Your task to perform on an android device: turn off location history Image 0: 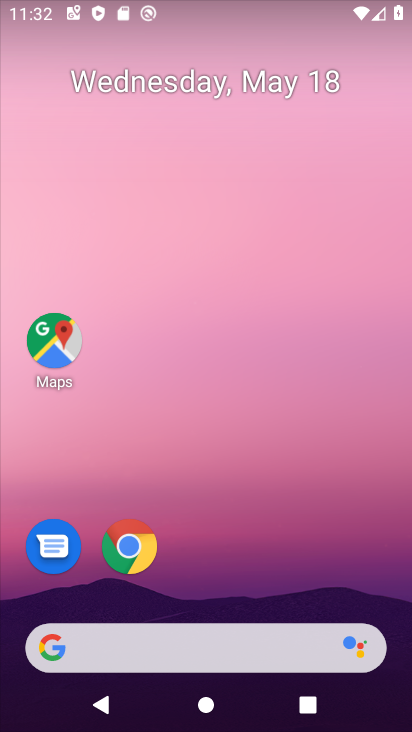
Step 0: drag from (226, 574) to (248, 52)
Your task to perform on an android device: turn off location history Image 1: 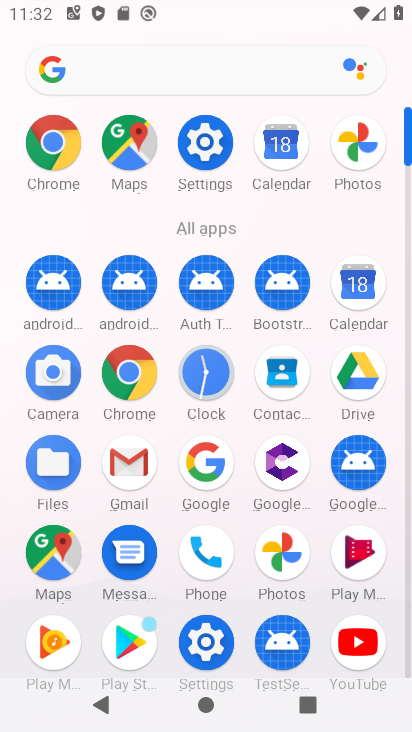
Step 1: click (203, 150)
Your task to perform on an android device: turn off location history Image 2: 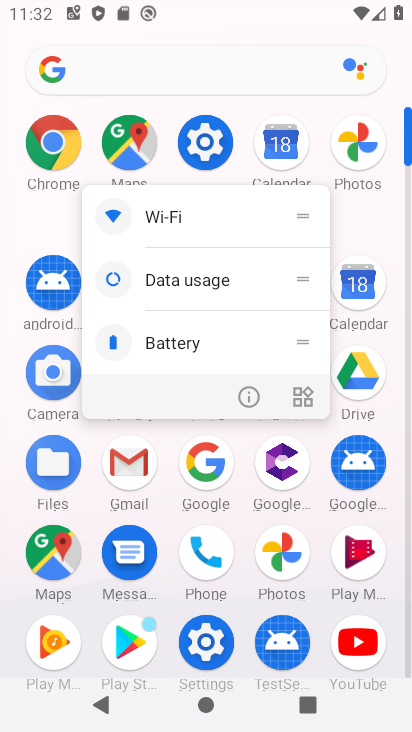
Step 2: click (199, 147)
Your task to perform on an android device: turn off location history Image 3: 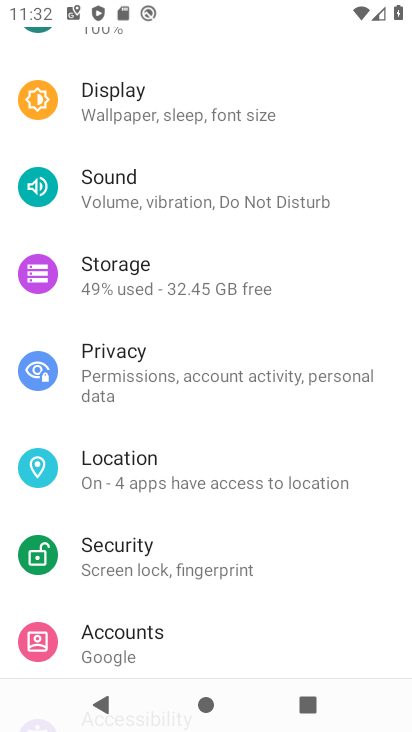
Step 3: click (158, 441)
Your task to perform on an android device: turn off location history Image 4: 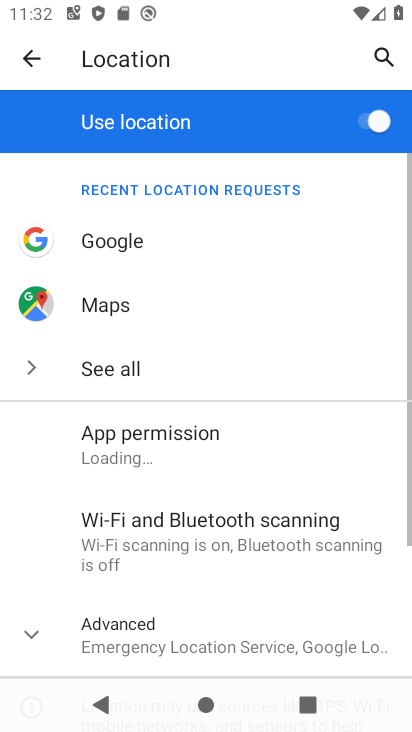
Step 4: drag from (219, 572) to (214, 212)
Your task to perform on an android device: turn off location history Image 5: 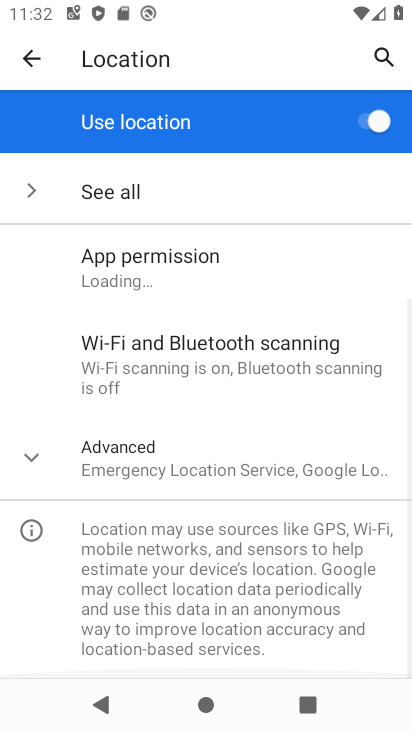
Step 5: click (124, 459)
Your task to perform on an android device: turn off location history Image 6: 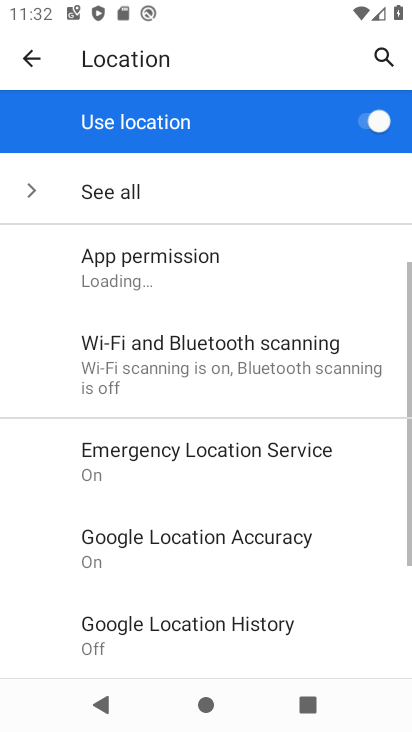
Step 6: drag from (224, 572) to (201, 422)
Your task to perform on an android device: turn off location history Image 7: 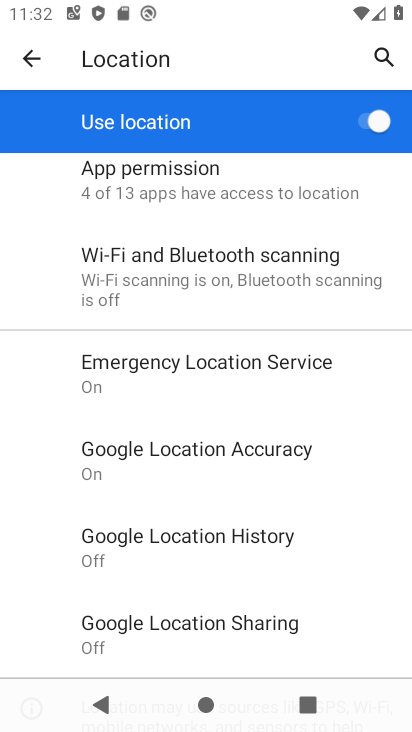
Step 7: click (151, 538)
Your task to perform on an android device: turn off location history Image 8: 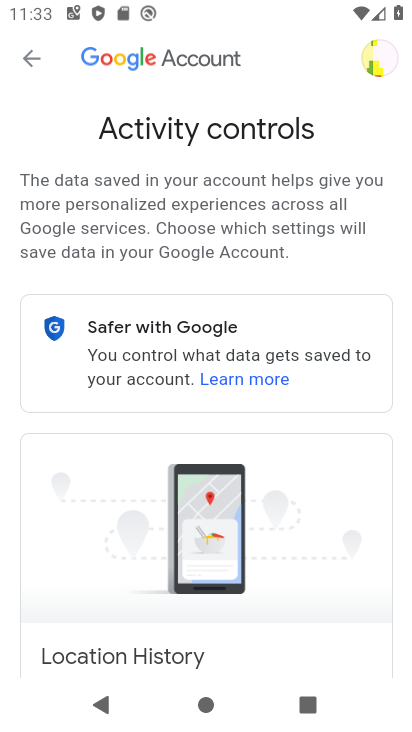
Step 8: drag from (281, 596) to (331, 153)
Your task to perform on an android device: turn off location history Image 9: 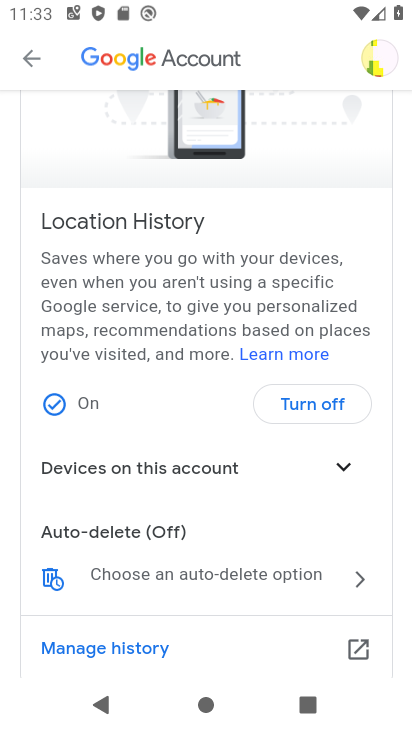
Step 9: click (313, 407)
Your task to perform on an android device: turn off location history Image 10: 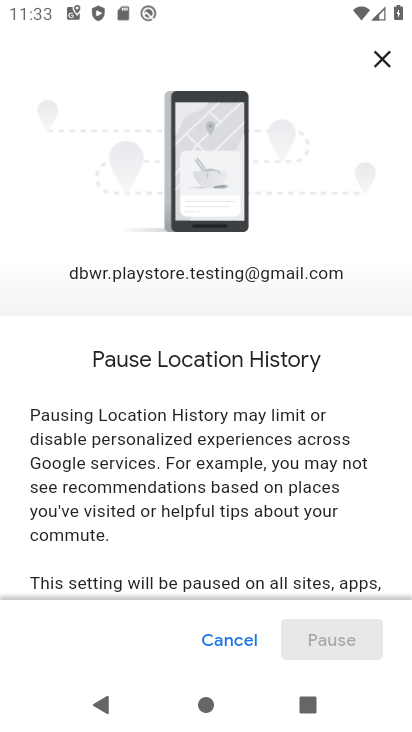
Step 10: drag from (299, 574) to (334, 69)
Your task to perform on an android device: turn off location history Image 11: 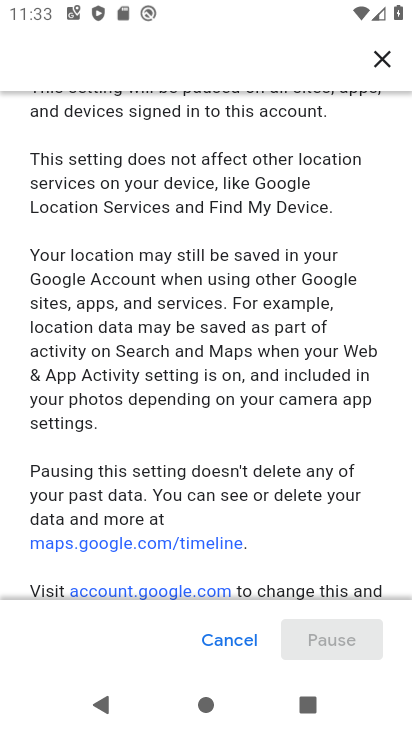
Step 11: drag from (318, 564) to (352, 60)
Your task to perform on an android device: turn off location history Image 12: 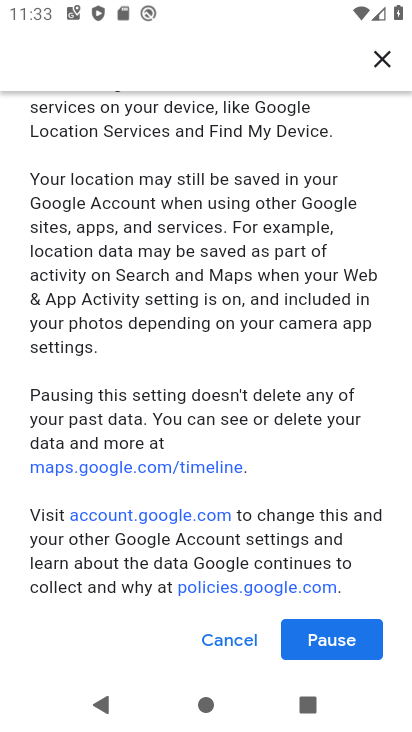
Step 12: click (306, 634)
Your task to perform on an android device: turn off location history Image 13: 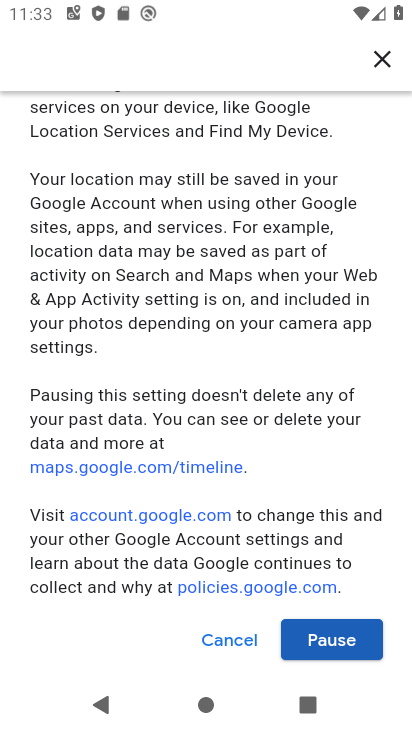
Step 13: click (344, 641)
Your task to perform on an android device: turn off location history Image 14: 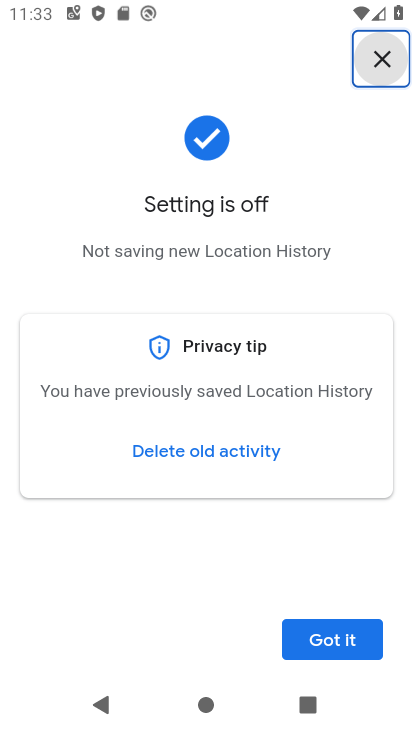
Step 14: click (338, 641)
Your task to perform on an android device: turn off location history Image 15: 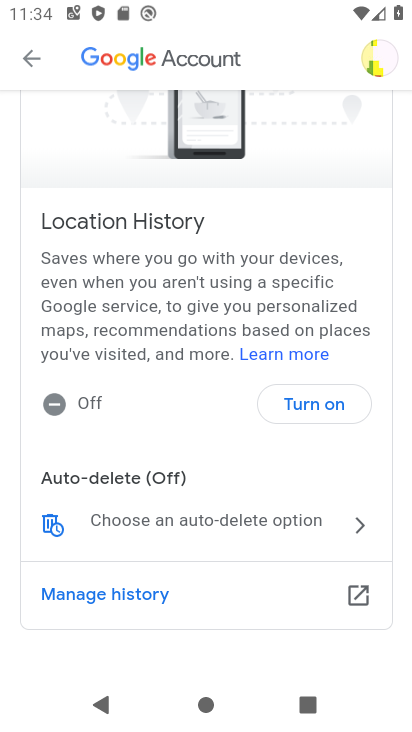
Step 15: task complete